Your task to perform on an android device: What is the news today? Image 0: 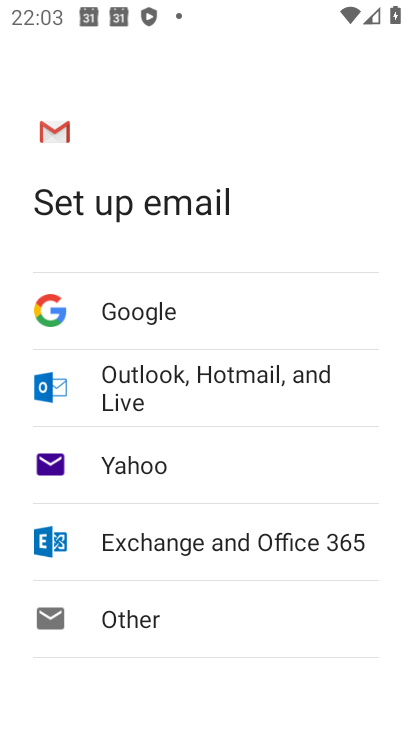
Step 0: press home button
Your task to perform on an android device: What is the news today? Image 1: 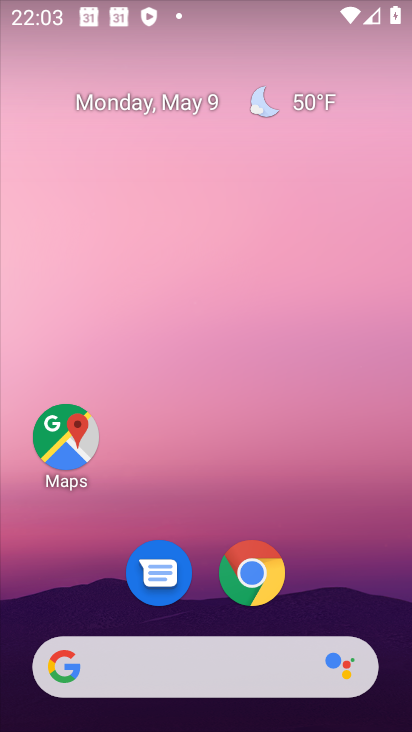
Step 1: click (249, 575)
Your task to perform on an android device: What is the news today? Image 2: 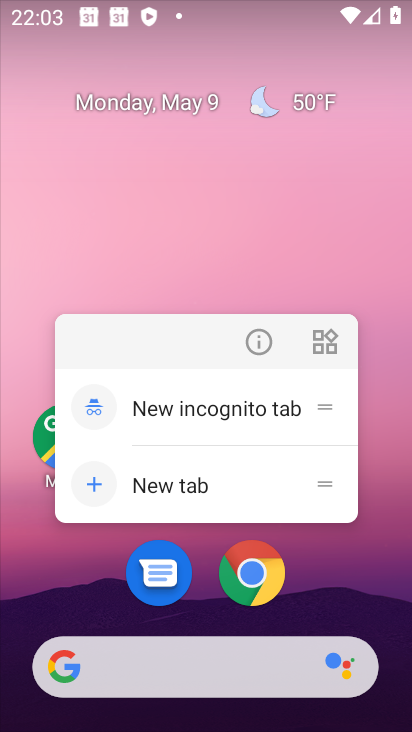
Step 2: click (249, 575)
Your task to perform on an android device: What is the news today? Image 3: 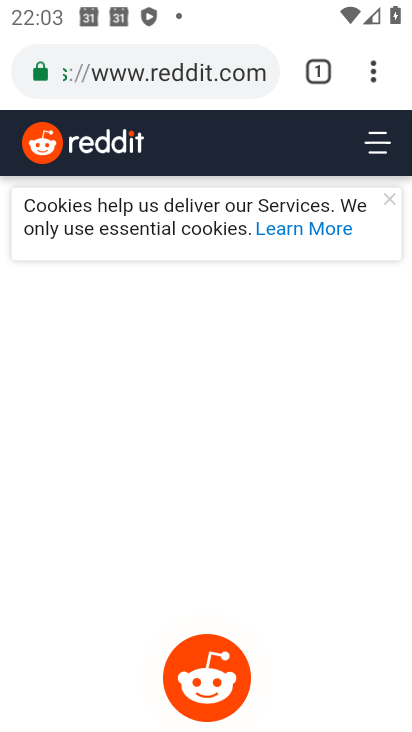
Step 3: click (221, 79)
Your task to perform on an android device: What is the news today? Image 4: 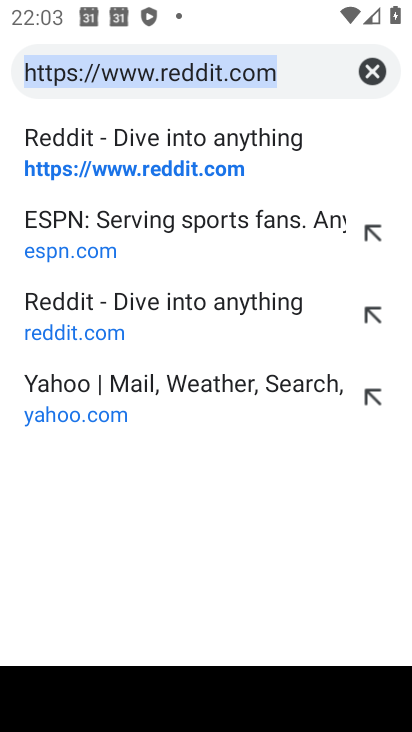
Step 4: type "news"
Your task to perform on an android device: What is the news today? Image 5: 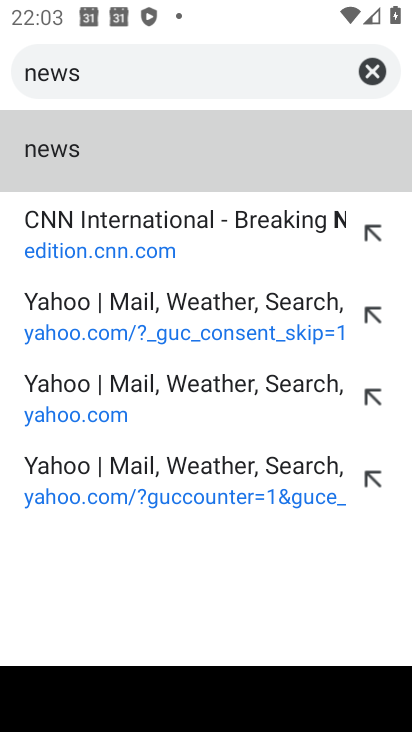
Step 5: click (71, 146)
Your task to perform on an android device: What is the news today? Image 6: 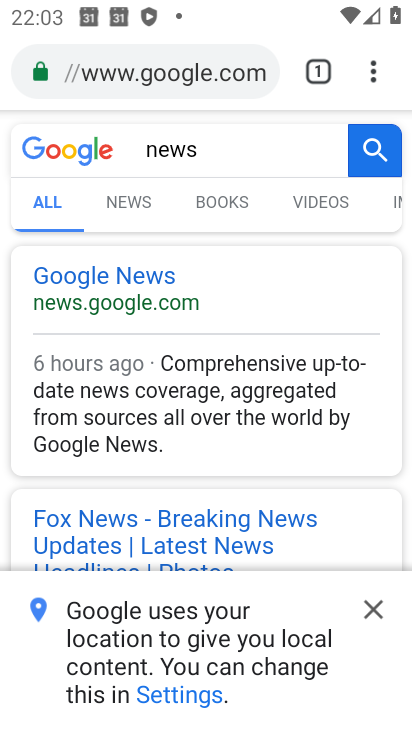
Step 6: click (142, 209)
Your task to perform on an android device: What is the news today? Image 7: 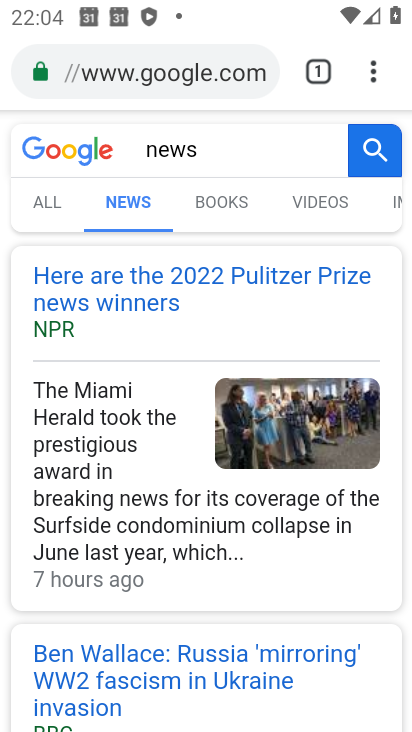
Step 7: task complete